Your task to perform on an android device: install app "WhatsApp Messenger" Image 0: 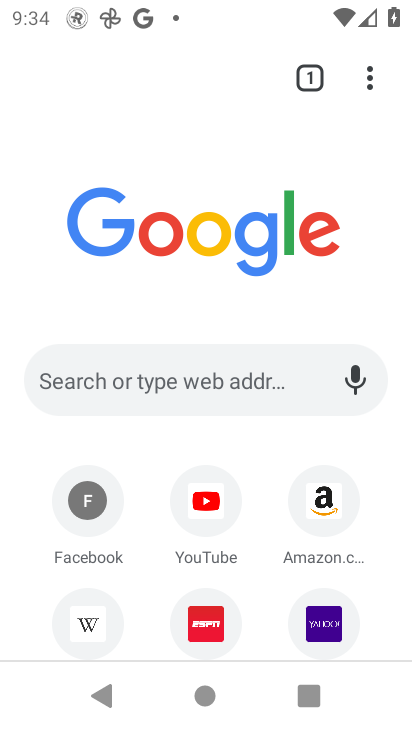
Step 0: click (81, 370)
Your task to perform on an android device: install app "WhatsApp Messenger" Image 1: 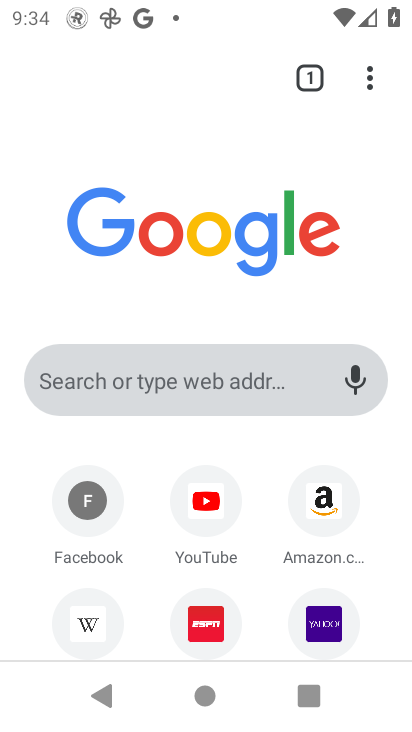
Step 1: click (90, 365)
Your task to perform on an android device: install app "WhatsApp Messenger" Image 2: 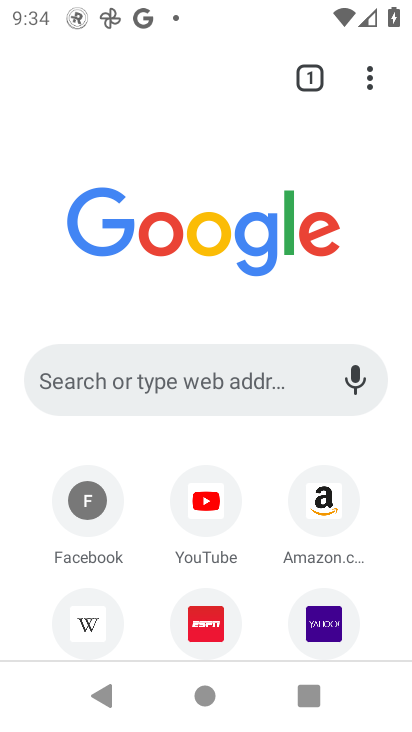
Step 2: click (91, 366)
Your task to perform on an android device: install app "WhatsApp Messenger" Image 3: 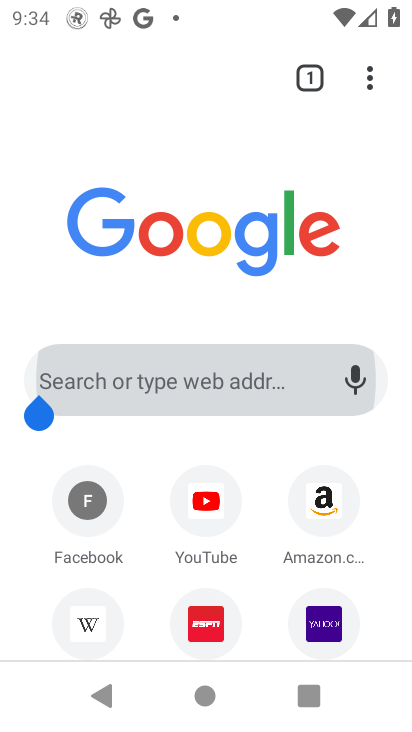
Step 3: click (97, 369)
Your task to perform on an android device: install app "WhatsApp Messenger" Image 4: 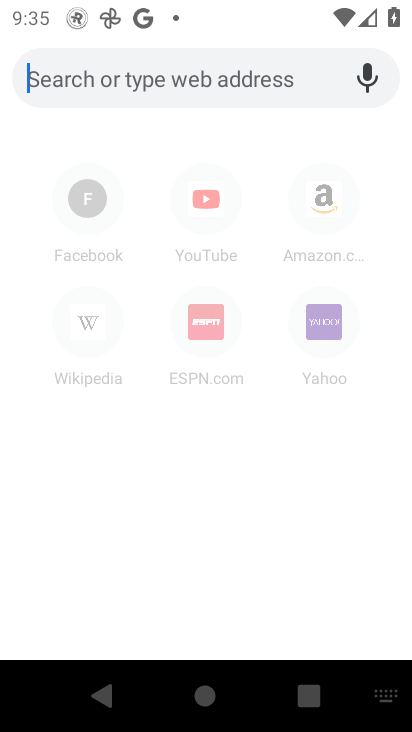
Step 4: type "Whatsapp Messenger"
Your task to perform on an android device: install app "WhatsApp Messenger" Image 5: 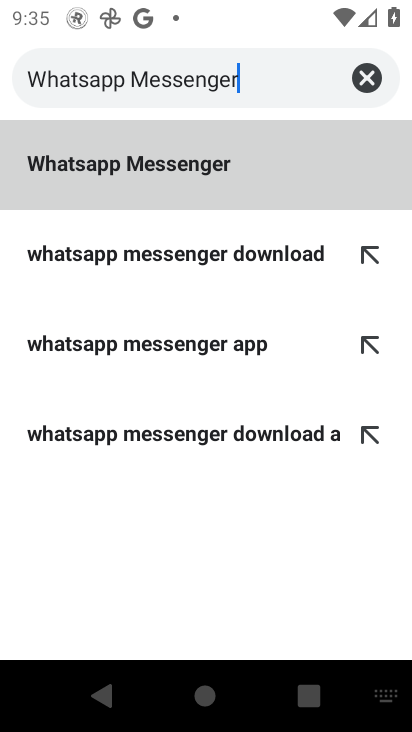
Step 5: click (177, 175)
Your task to perform on an android device: install app "WhatsApp Messenger" Image 6: 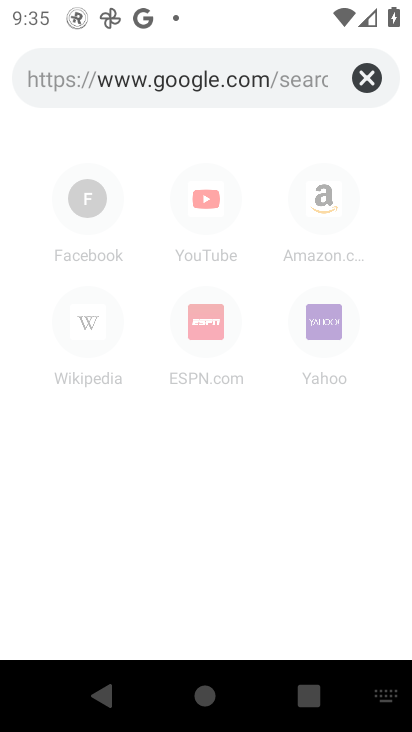
Step 6: click (179, 167)
Your task to perform on an android device: install app "WhatsApp Messenger" Image 7: 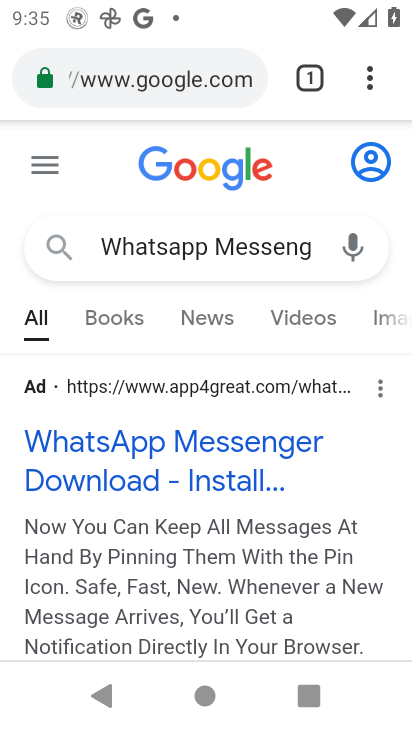
Step 7: drag from (230, 493) to (189, 354)
Your task to perform on an android device: install app "WhatsApp Messenger" Image 8: 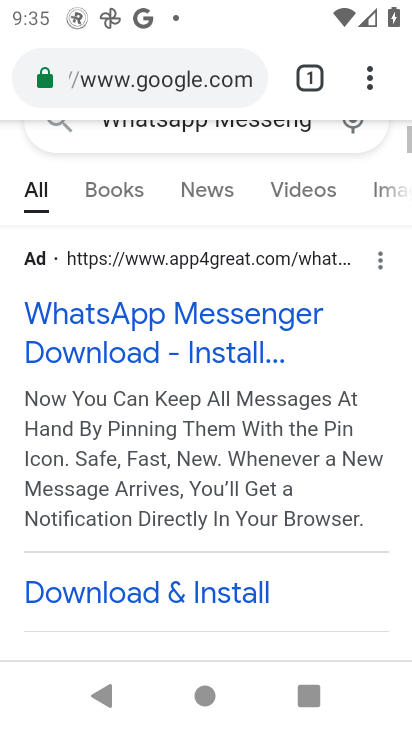
Step 8: drag from (249, 528) to (249, 340)
Your task to perform on an android device: install app "WhatsApp Messenger" Image 9: 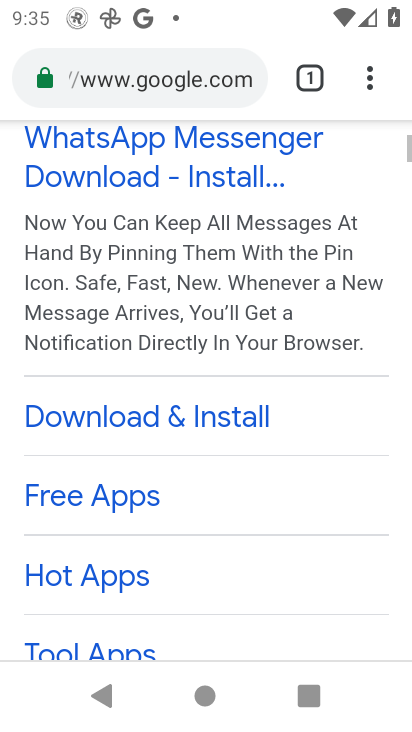
Step 9: drag from (171, 467) to (171, 351)
Your task to perform on an android device: install app "WhatsApp Messenger" Image 10: 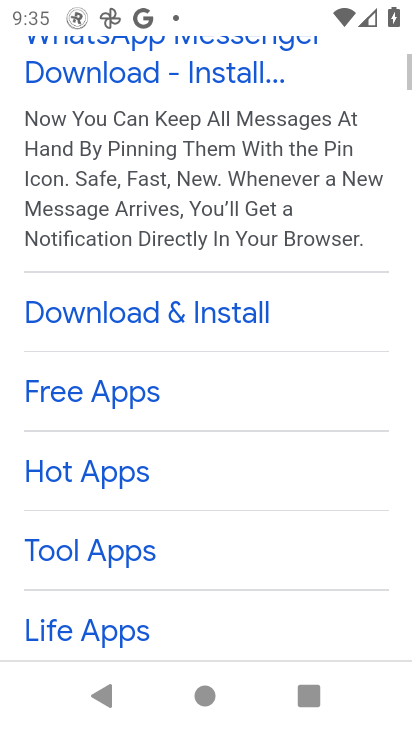
Step 10: drag from (208, 560) to (210, 625)
Your task to perform on an android device: install app "WhatsApp Messenger" Image 11: 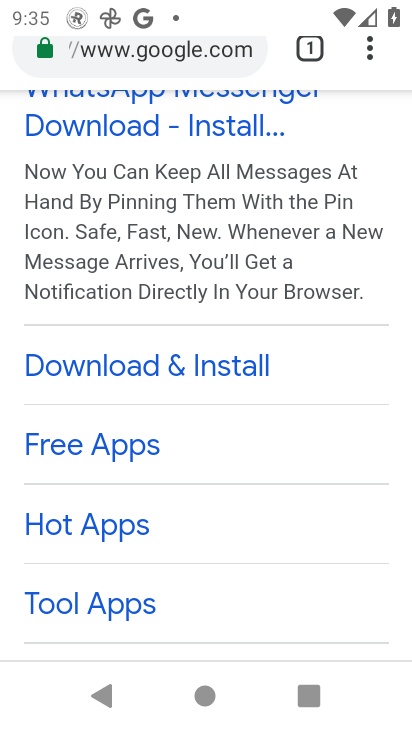
Step 11: drag from (196, 460) to (196, 602)
Your task to perform on an android device: install app "WhatsApp Messenger" Image 12: 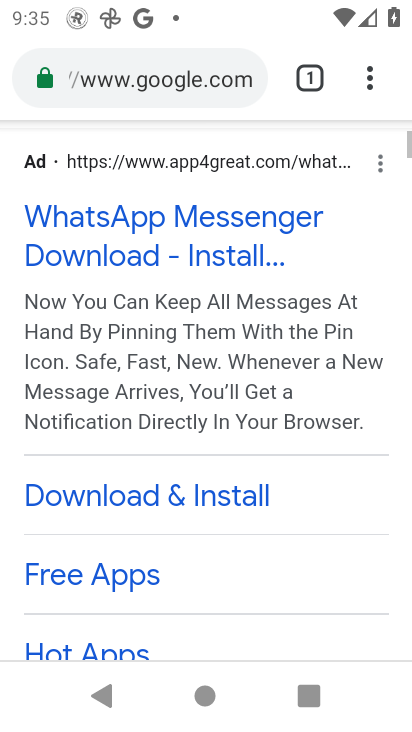
Step 12: click (236, 566)
Your task to perform on an android device: install app "WhatsApp Messenger" Image 13: 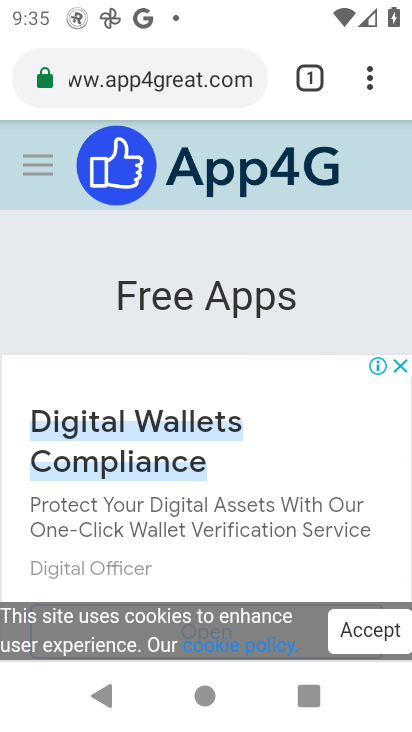
Step 13: task complete